Your task to perform on an android device: What's on my calendar tomorrow? Image 0: 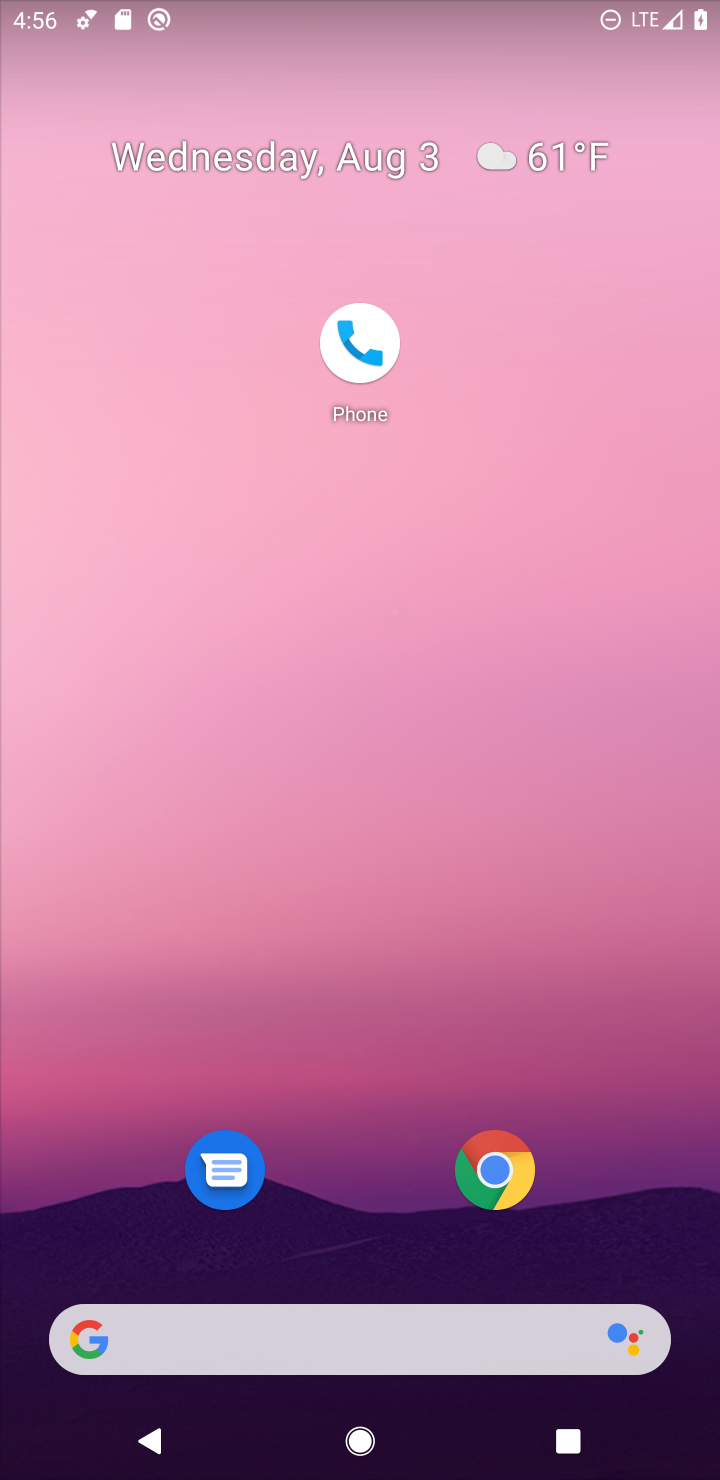
Step 0: drag from (302, 1171) to (266, 116)
Your task to perform on an android device: What's on my calendar tomorrow? Image 1: 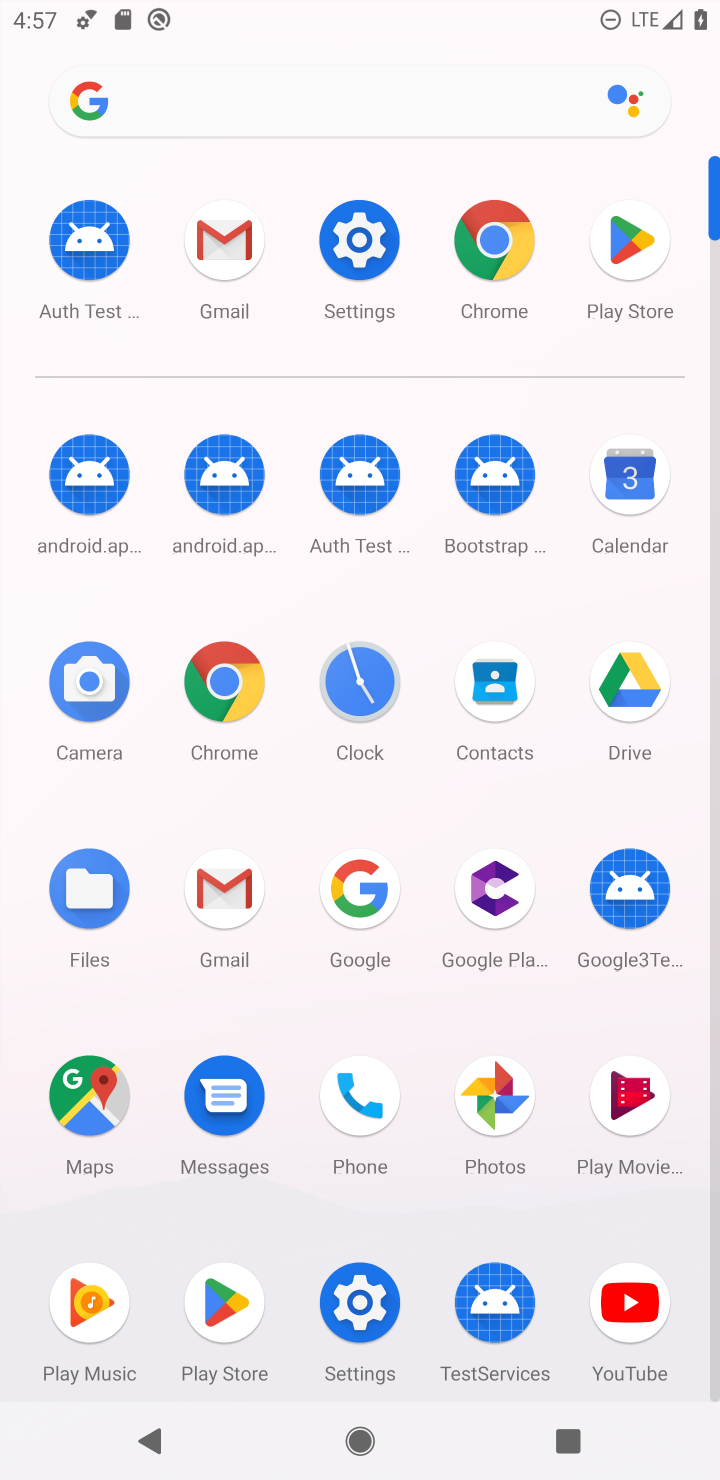
Step 1: click (625, 515)
Your task to perform on an android device: What's on my calendar tomorrow? Image 2: 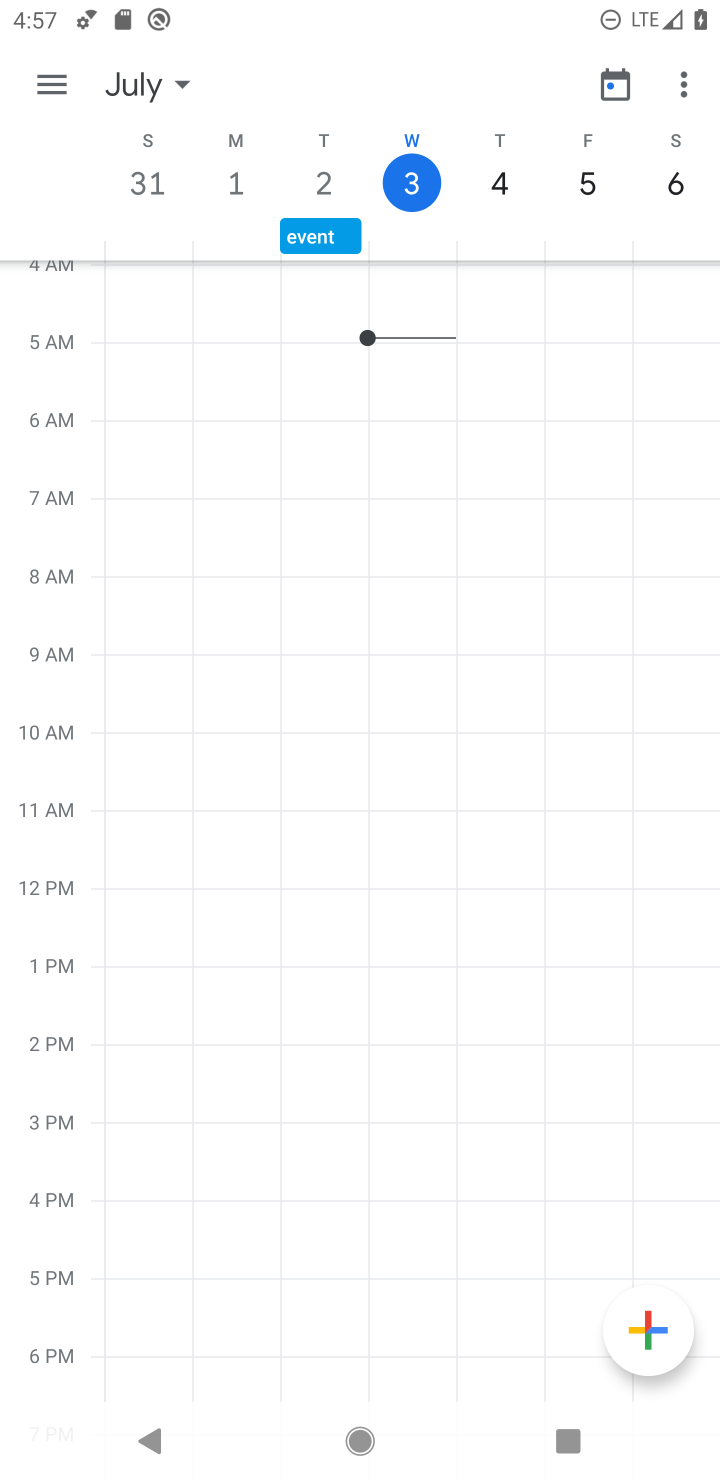
Step 2: click (510, 186)
Your task to perform on an android device: What's on my calendar tomorrow? Image 3: 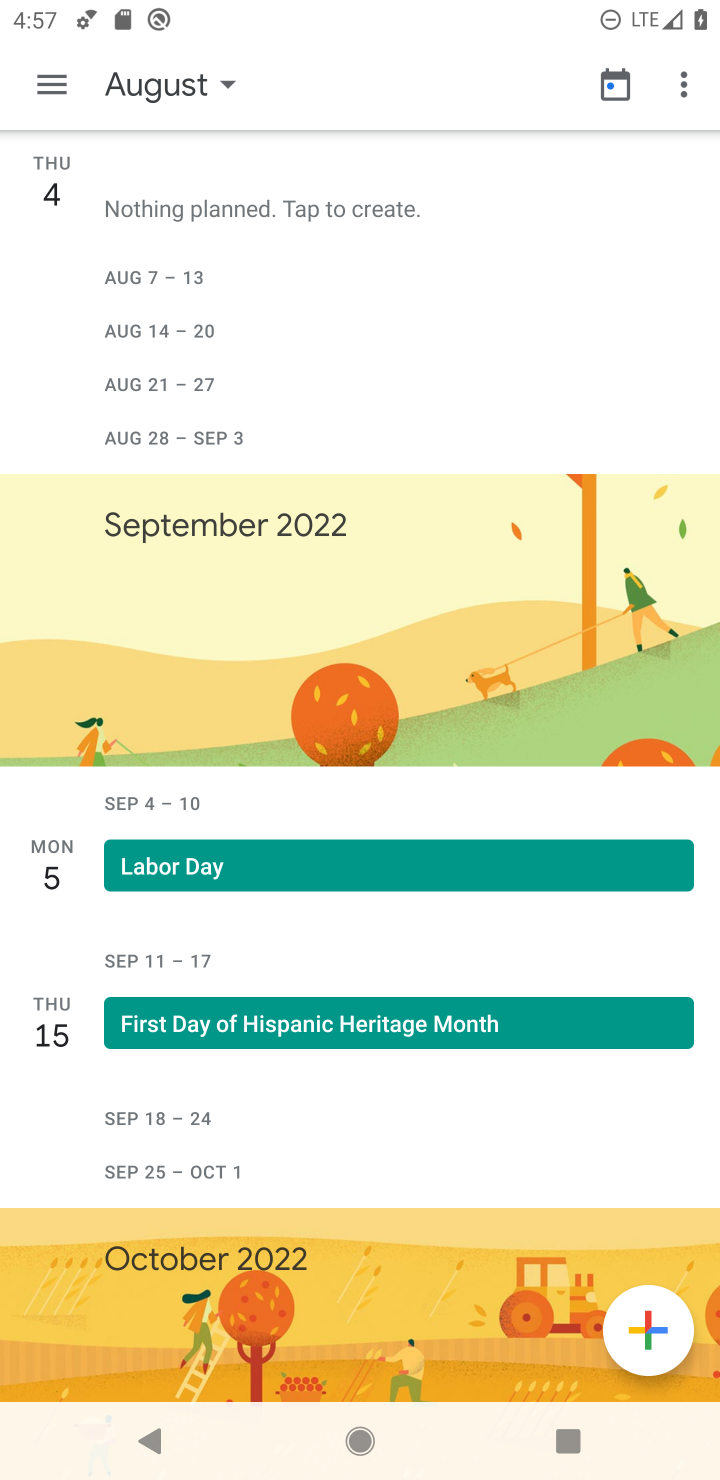
Step 3: click (61, 81)
Your task to perform on an android device: What's on my calendar tomorrow? Image 4: 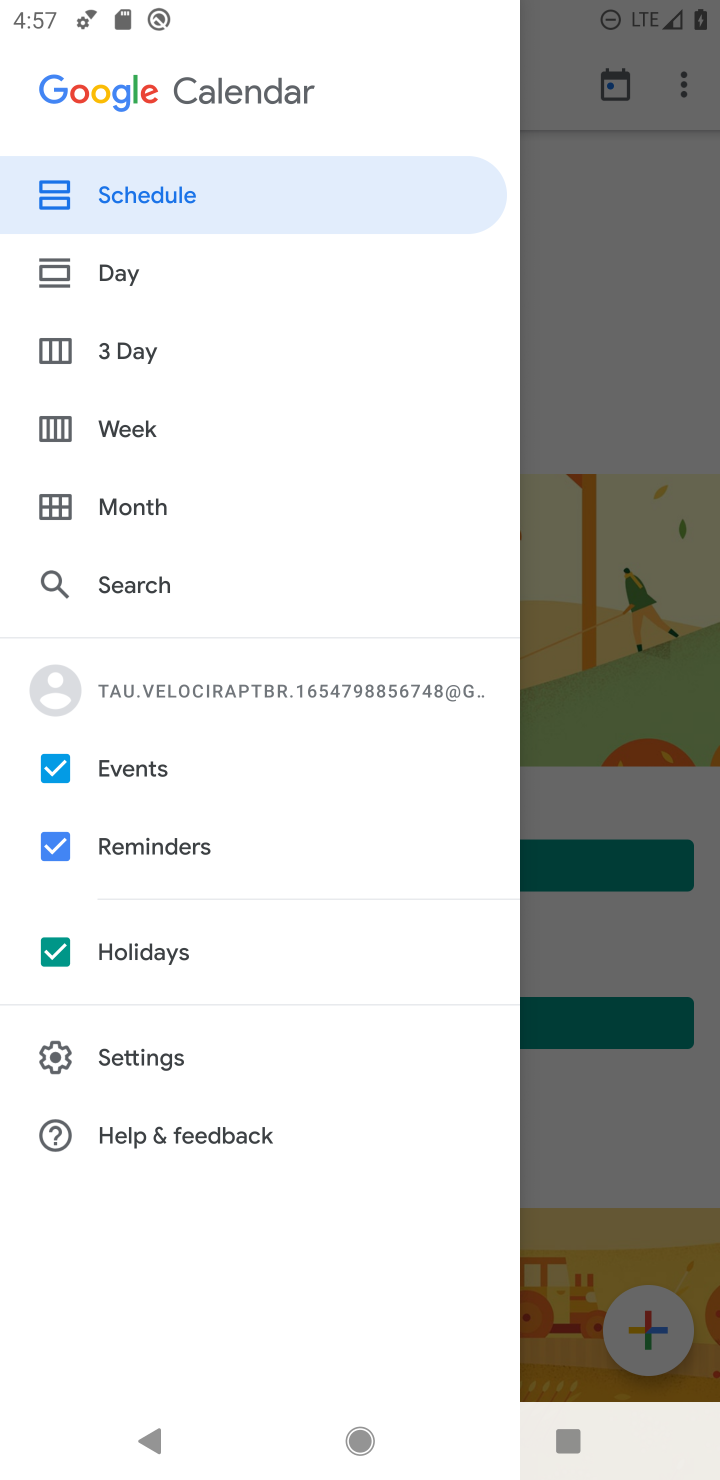
Step 4: click (113, 198)
Your task to perform on an android device: What's on my calendar tomorrow? Image 5: 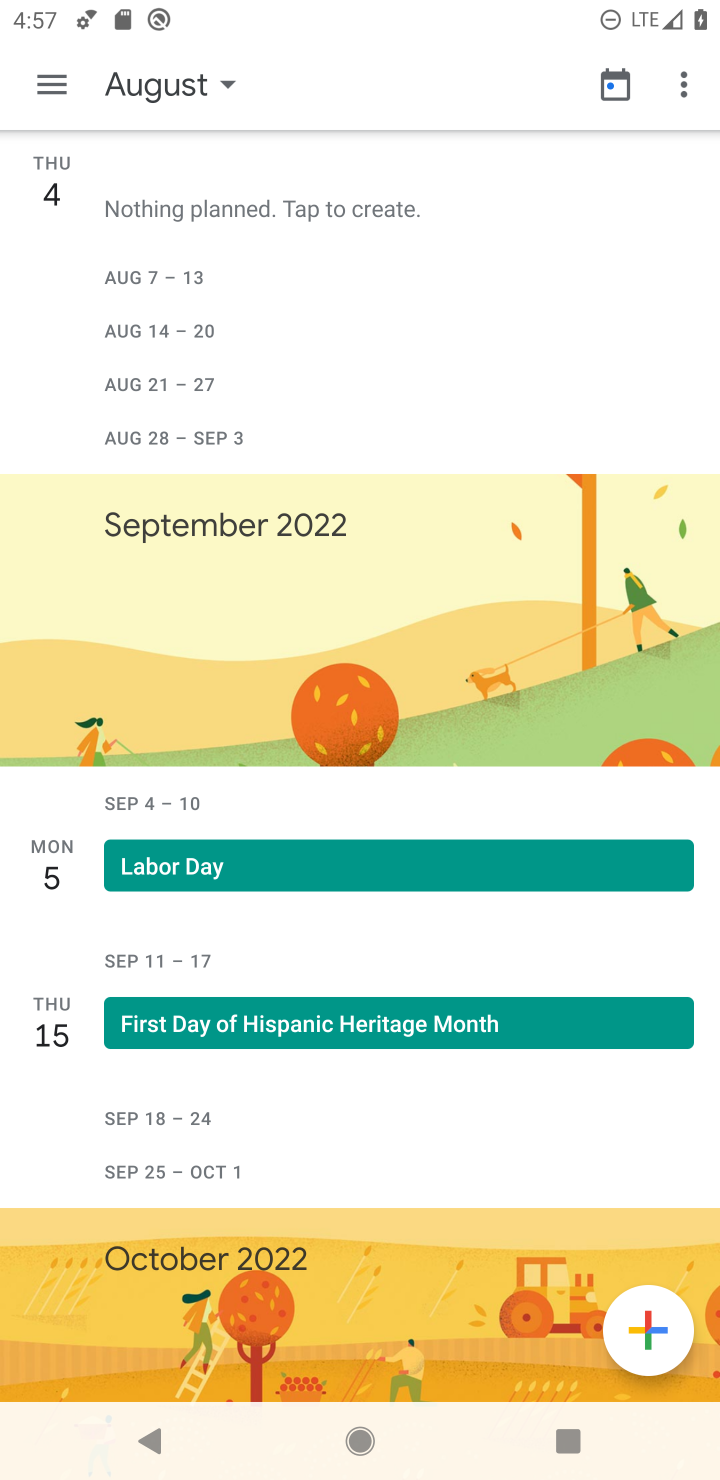
Step 5: task complete